Your task to perform on an android device: Set the phone to "Do not disturb". Image 0: 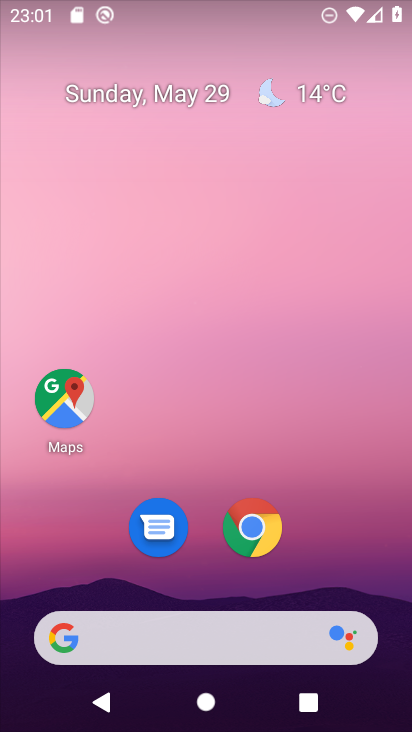
Step 0: press home button
Your task to perform on an android device: Set the phone to "Do not disturb". Image 1: 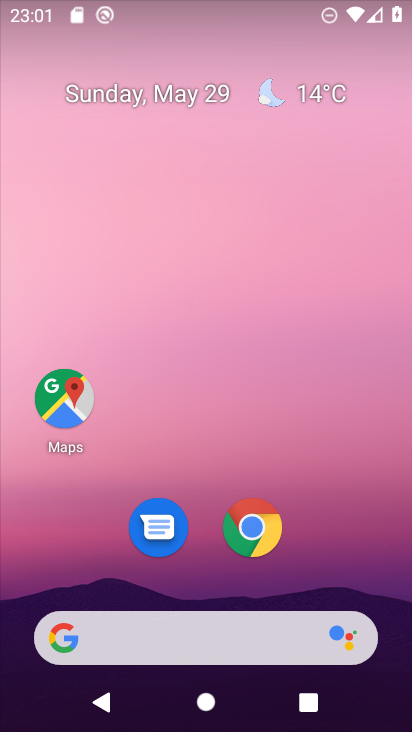
Step 1: drag from (192, 638) to (357, 110)
Your task to perform on an android device: Set the phone to "Do not disturb". Image 2: 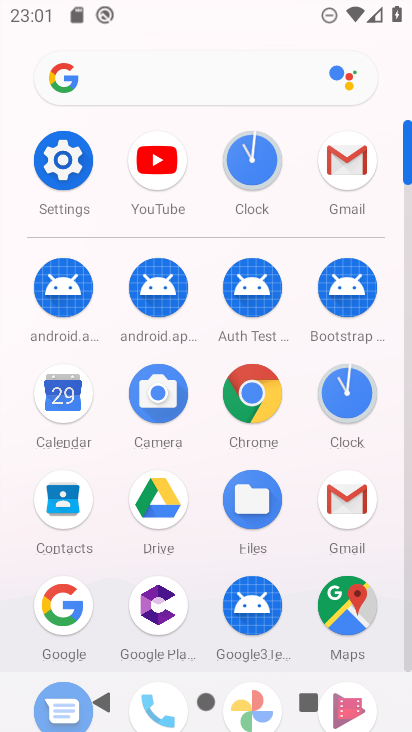
Step 2: click (65, 168)
Your task to perform on an android device: Set the phone to "Do not disturb". Image 3: 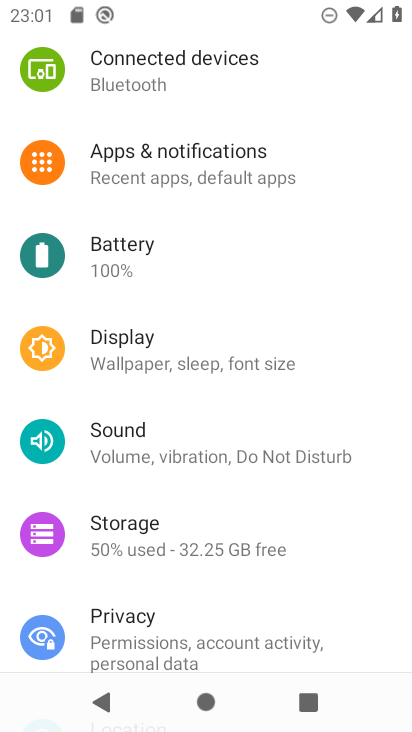
Step 3: click (178, 448)
Your task to perform on an android device: Set the phone to "Do not disturb". Image 4: 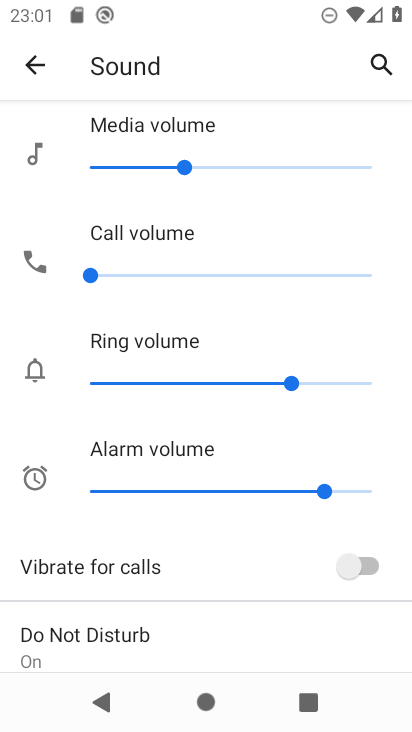
Step 4: click (139, 640)
Your task to perform on an android device: Set the phone to "Do not disturb". Image 5: 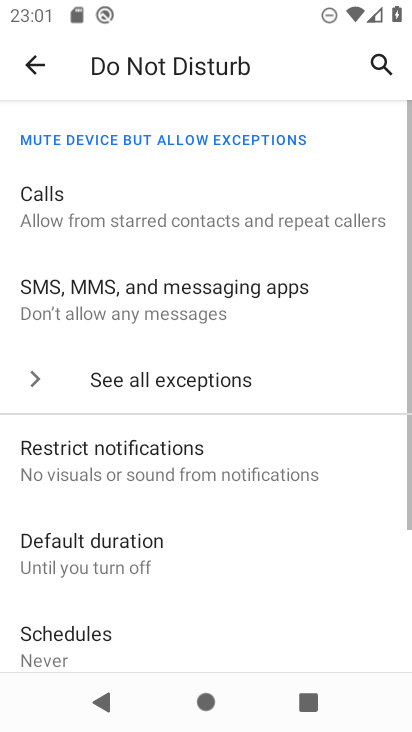
Step 5: task complete